Your task to perform on an android device: see tabs open on other devices in the chrome app Image 0: 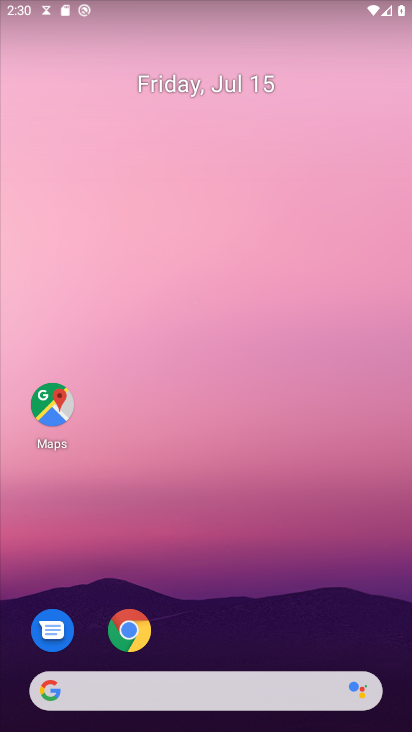
Step 0: drag from (293, 473) to (236, 0)
Your task to perform on an android device: see tabs open on other devices in the chrome app Image 1: 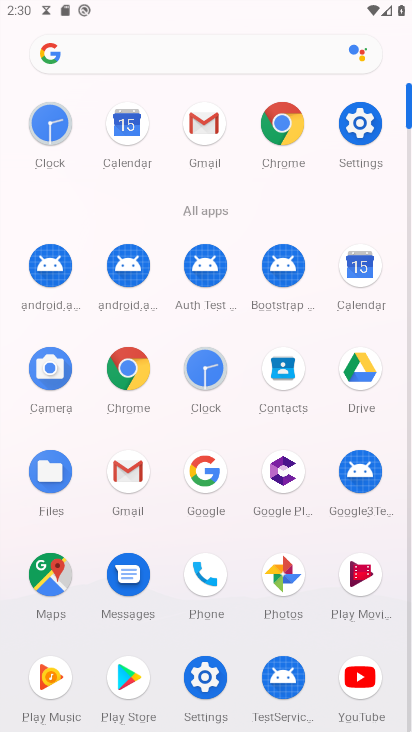
Step 1: click (290, 130)
Your task to perform on an android device: see tabs open on other devices in the chrome app Image 2: 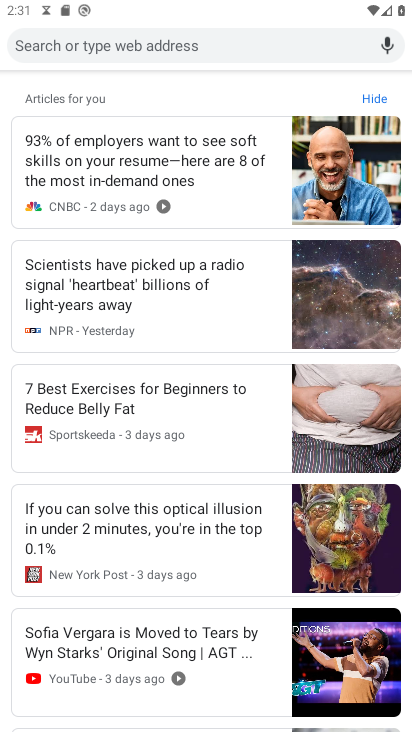
Step 2: drag from (261, 106) to (217, 597)
Your task to perform on an android device: see tabs open on other devices in the chrome app Image 3: 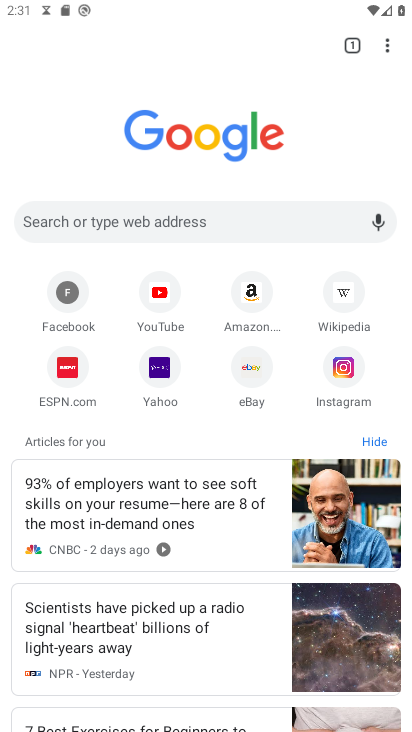
Step 3: drag from (392, 42) to (228, 220)
Your task to perform on an android device: see tabs open on other devices in the chrome app Image 4: 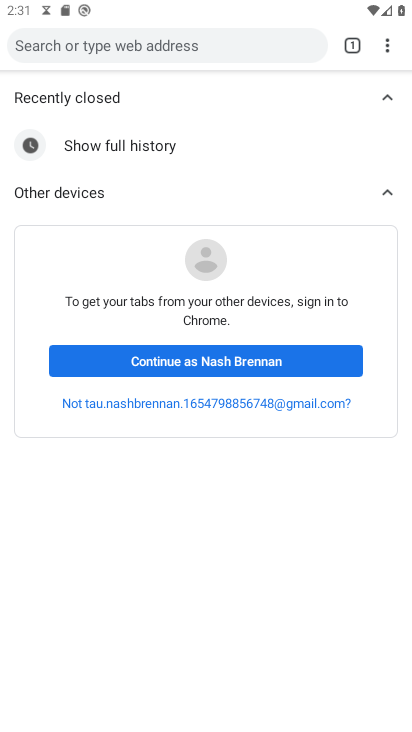
Step 4: click (146, 363)
Your task to perform on an android device: see tabs open on other devices in the chrome app Image 5: 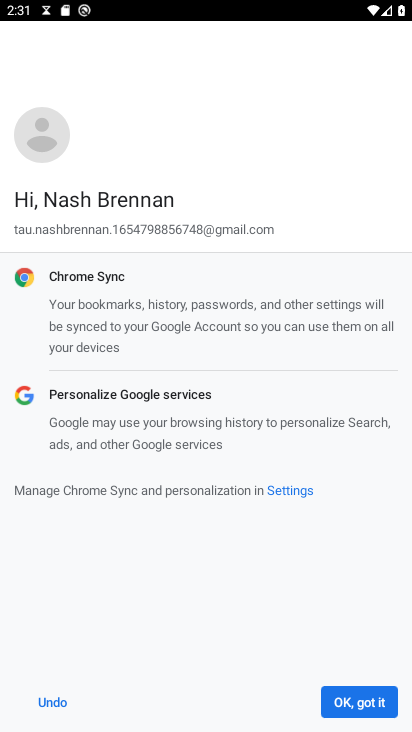
Step 5: click (363, 699)
Your task to perform on an android device: see tabs open on other devices in the chrome app Image 6: 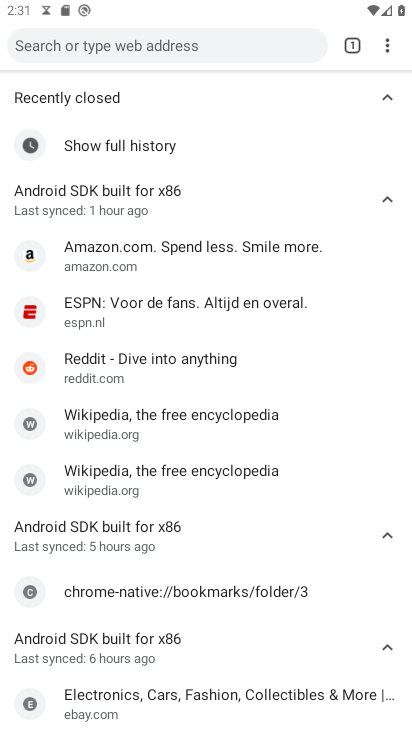
Step 6: task complete